Your task to perform on an android device: delete browsing data in the chrome app Image 0: 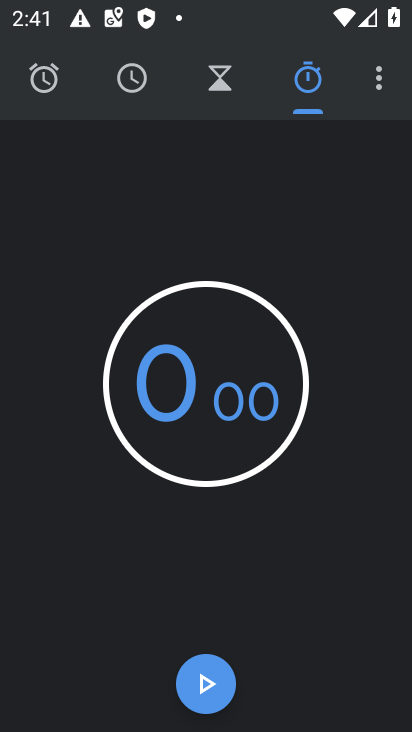
Step 0: press home button
Your task to perform on an android device: delete browsing data in the chrome app Image 1: 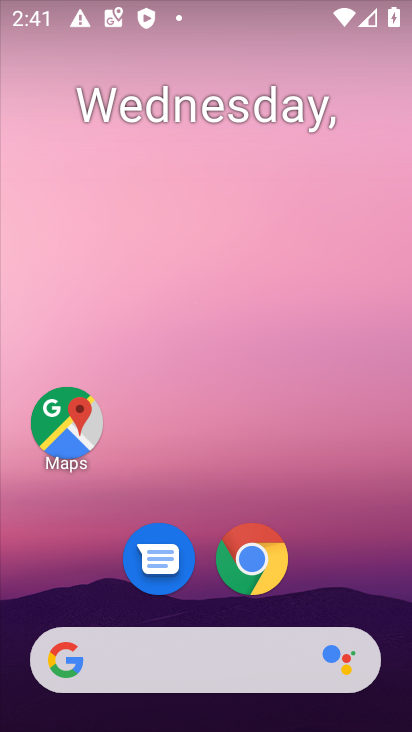
Step 1: drag from (211, 584) to (213, 63)
Your task to perform on an android device: delete browsing data in the chrome app Image 2: 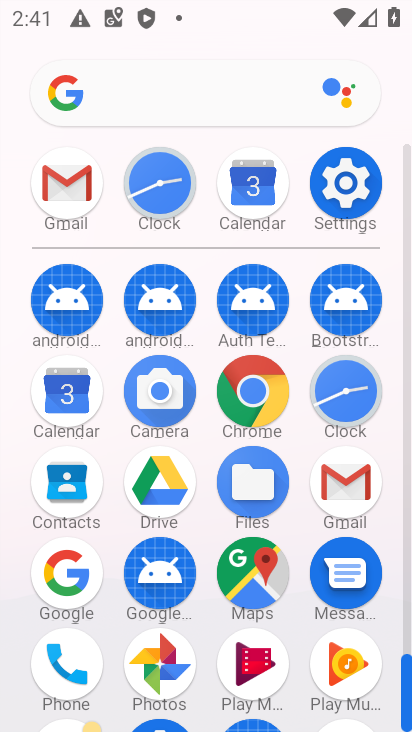
Step 2: click (259, 388)
Your task to perform on an android device: delete browsing data in the chrome app Image 3: 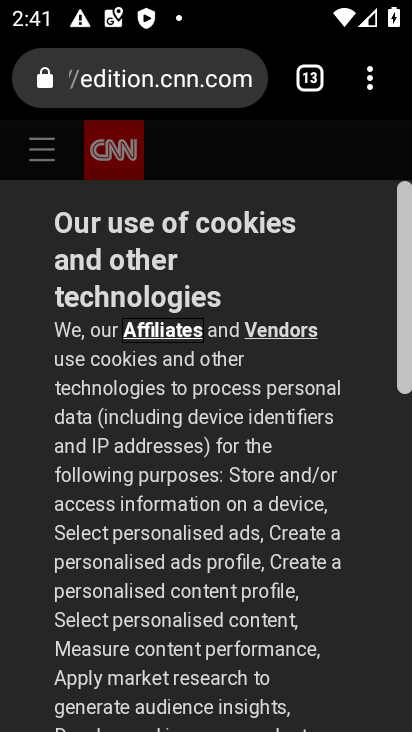
Step 3: click (372, 86)
Your task to perform on an android device: delete browsing data in the chrome app Image 4: 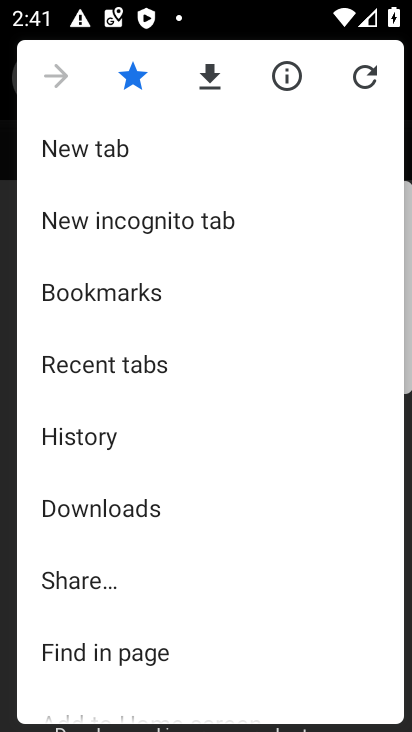
Step 4: click (81, 435)
Your task to perform on an android device: delete browsing data in the chrome app Image 5: 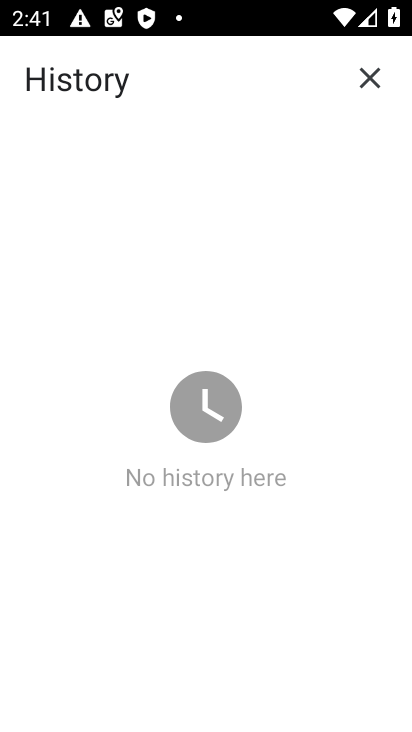
Step 5: task complete